Your task to perform on an android device: turn off sleep mode Image 0: 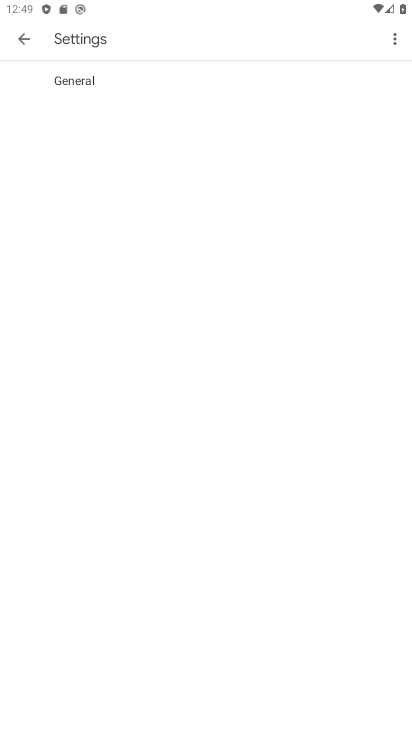
Step 0: press home button
Your task to perform on an android device: turn off sleep mode Image 1: 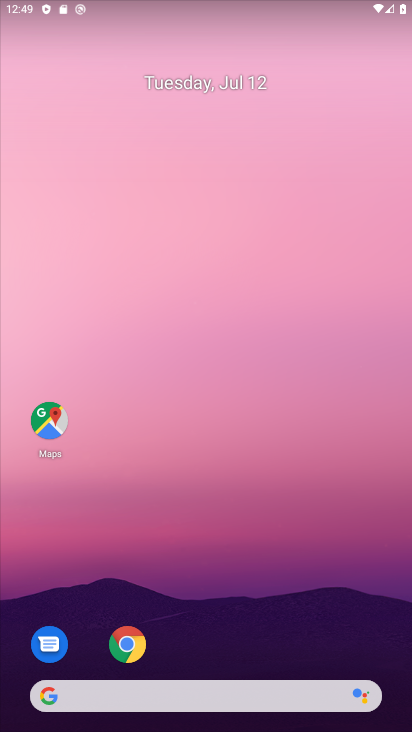
Step 1: click (229, 194)
Your task to perform on an android device: turn off sleep mode Image 2: 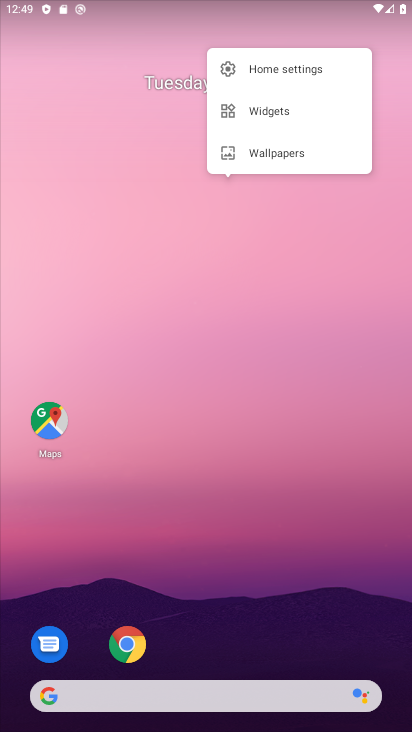
Step 2: drag from (383, 635) to (314, 218)
Your task to perform on an android device: turn off sleep mode Image 3: 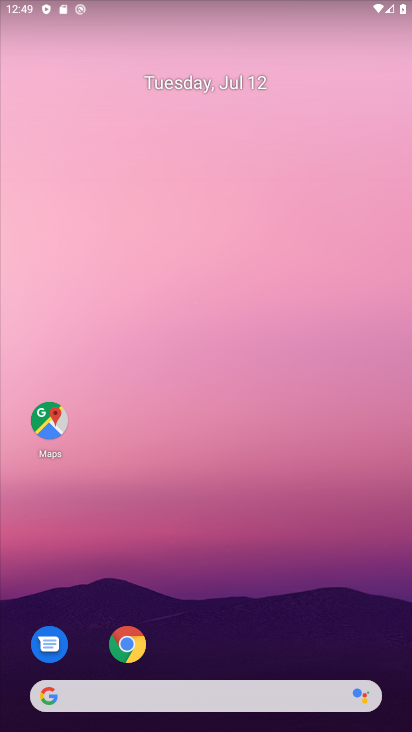
Step 3: drag from (223, 645) to (239, 232)
Your task to perform on an android device: turn off sleep mode Image 4: 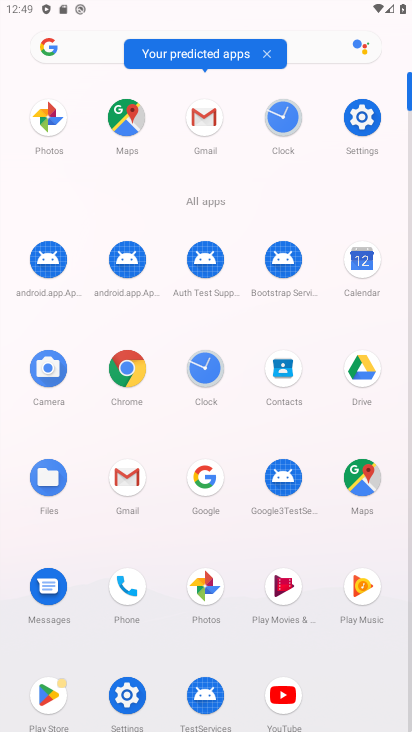
Step 4: click (367, 124)
Your task to perform on an android device: turn off sleep mode Image 5: 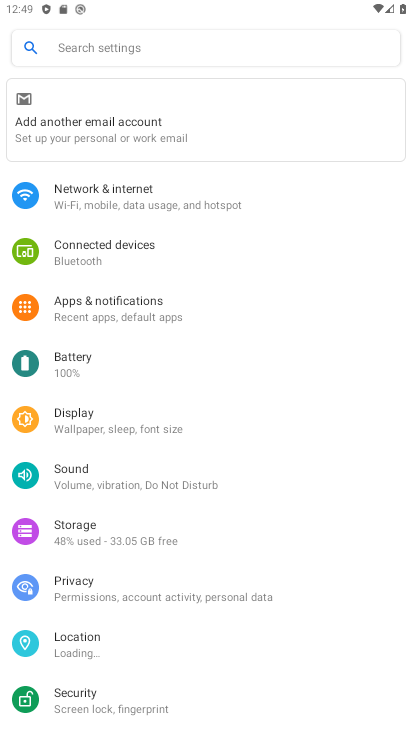
Step 5: click (218, 435)
Your task to perform on an android device: turn off sleep mode Image 6: 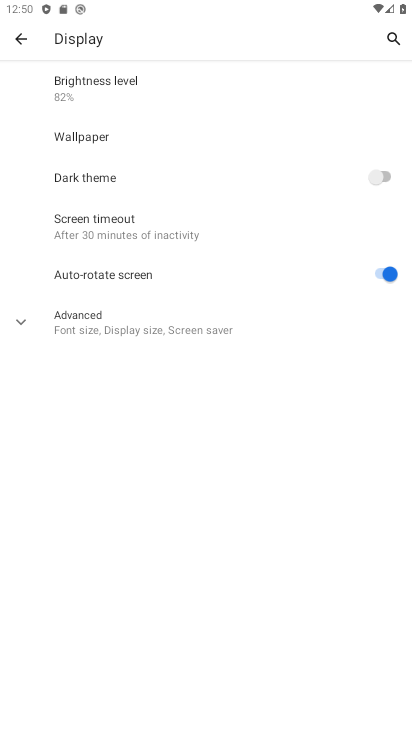
Step 6: task complete